Your task to perform on an android device: turn off sleep mode Image 0: 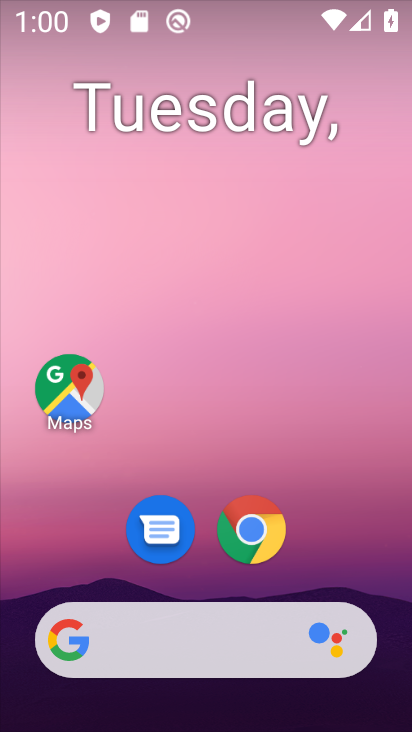
Step 0: drag from (343, 559) to (236, 202)
Your task to perform on an android device: turn off sleep mode Image 1: 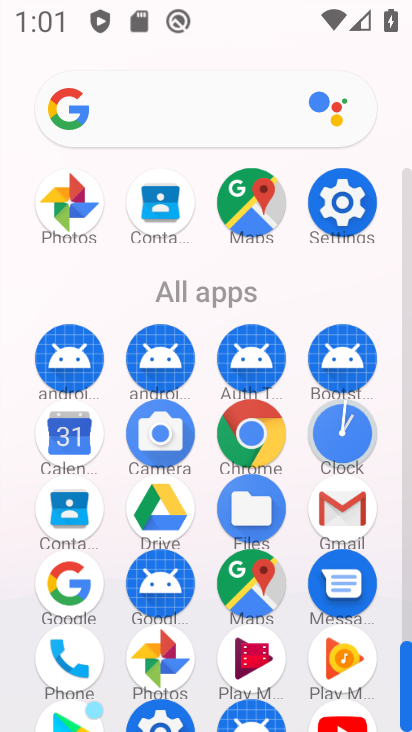
Step 1: click (342, 203)
Your task to perform on an android device: turn off sleep mode Image 2: 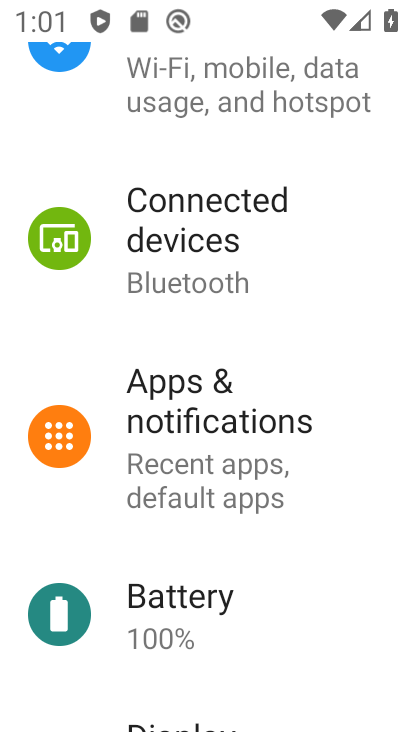
Step 2: drag from (151, 543) to (220, 440)
Your task to perform on an android device: turn off sleep mode Image 3: 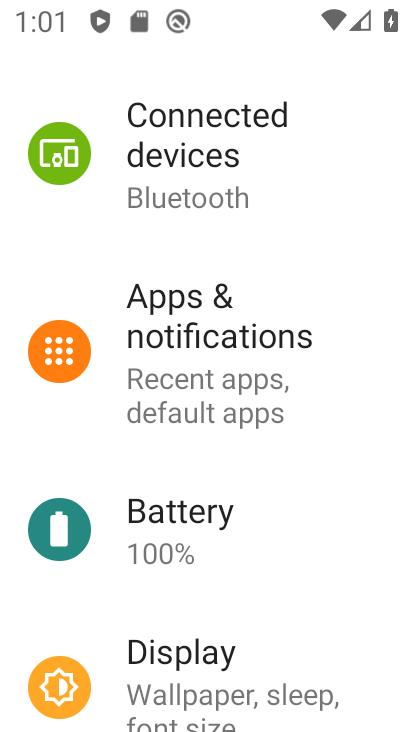
Step 3: drag from (183, 577) to (240, 482)
Your task to perform on an android device: turn off sleep mode Image 4: 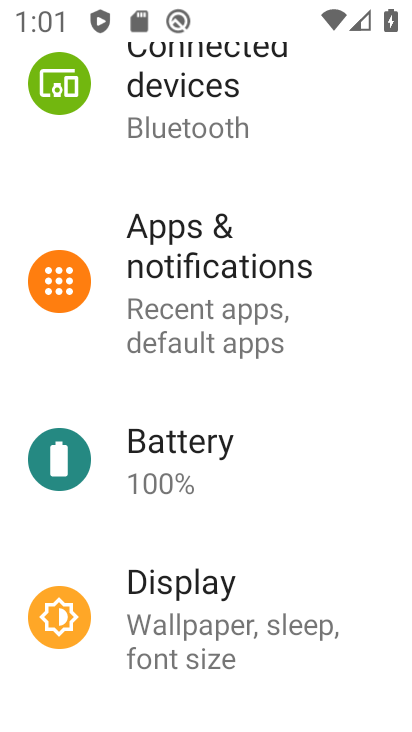
Step 4: drag from (175, 535) to (259, 416)
Your task to perform on an android device: turn off sleep mode Image 5: 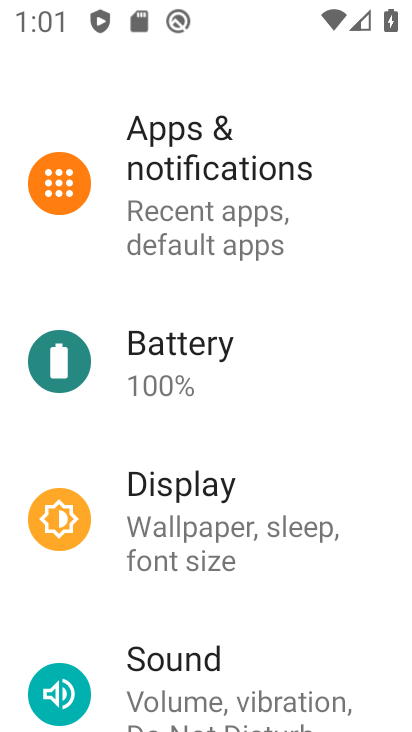
Step 5: drag from (177, 593) to (261, 459)
Your task to perform on an android device: turn off sleep mode Image 6: 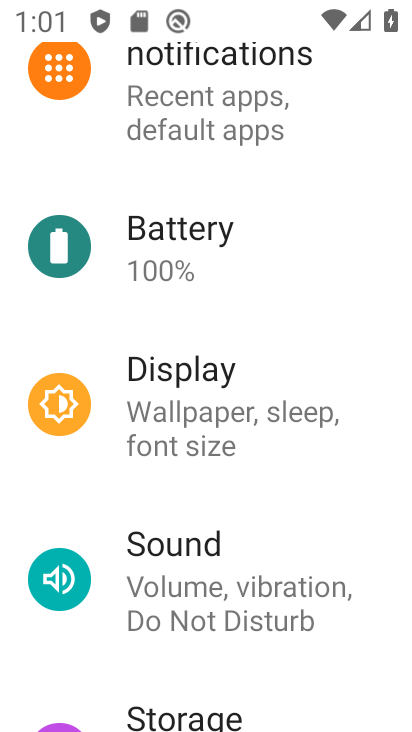
Step 6: click (219, 406)
Your task to perform on an android device: turn off sleep mode Image 7: 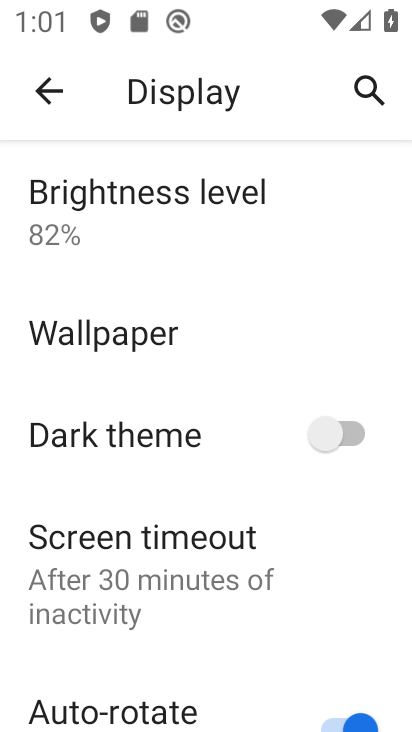
Step 7: drag from (152, 494) to (216, 368)
Your task to perform on an android device: turn off sleep mode Image 8: 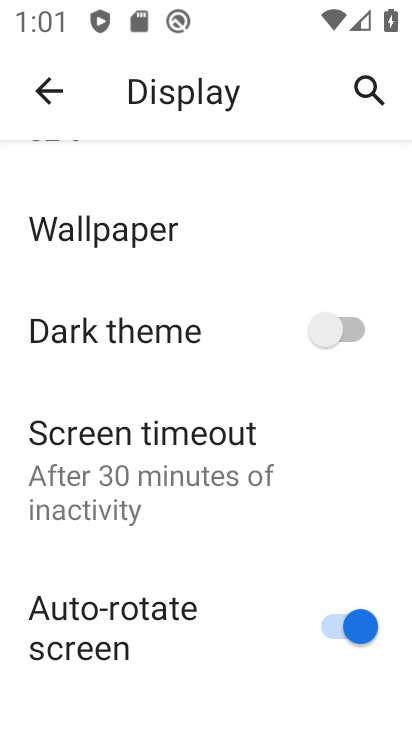
Step 8: drag from (125, 589) to (180, 451)
Your task to perform on an android device: turn off sleep mode Image 9: 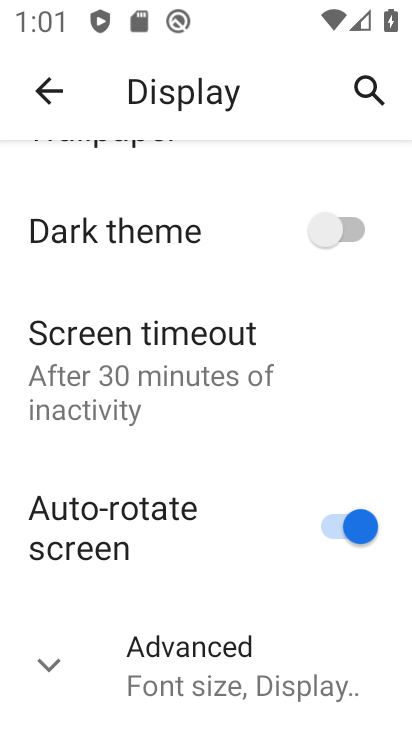
Step 9: click (159, 650)
Your task to perform on an android device: turn off sleep mode Image 10: 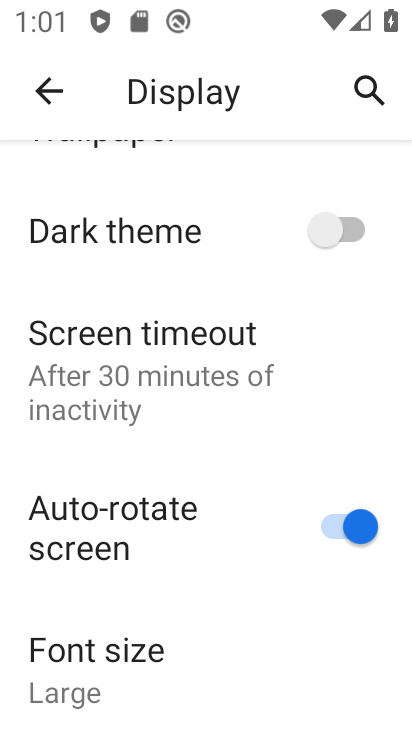
Step 10: task complete